Your task to perform on an android device: Open Wikipedia Image 0: 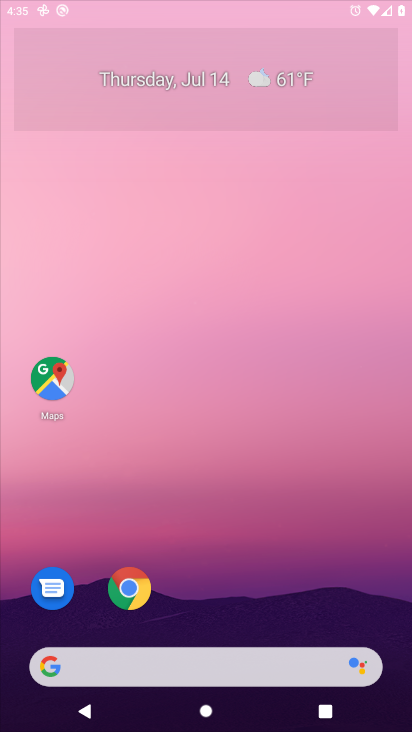
Step 0: press home button
Your task to perform on an android device: Open Wikipedia Image 1: 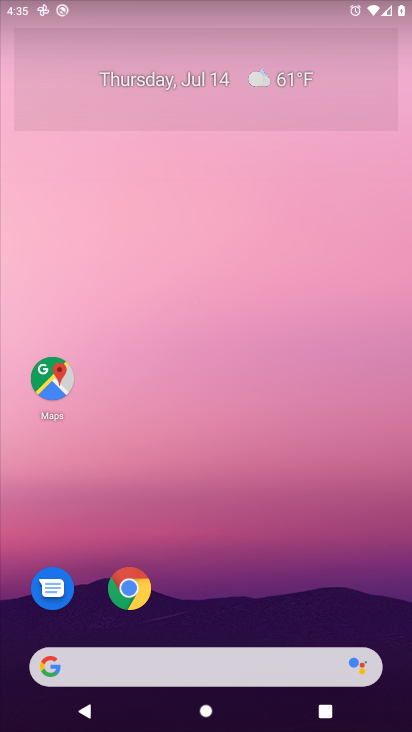
Step 1: click (48, 673)
Your task to perform on an android device: Open Wikipedia Image 2: 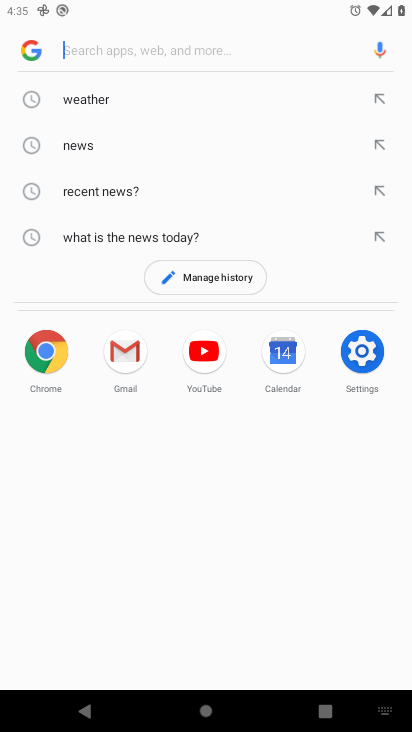
Step 2: press enter
Your task to perform on an android device: Open Wikipedia Image 3: 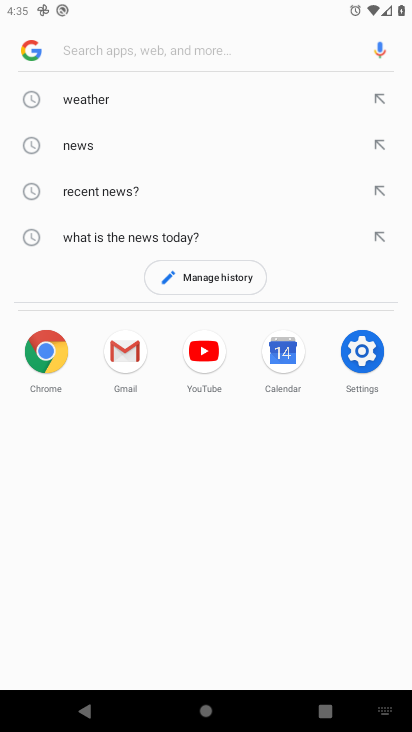
Step 3: type "Wikipedia"
Your task to perform on an android device: Open Wikipedia Image 4: 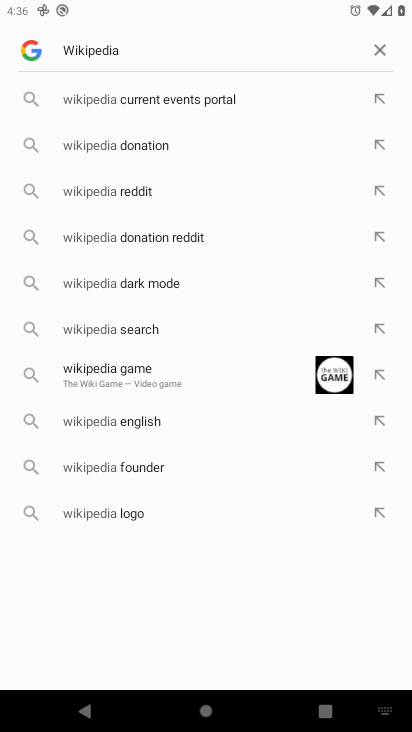
Step 4: click (127, 329)
Your task to perform on an android device: Open Wikipedia Image 5: 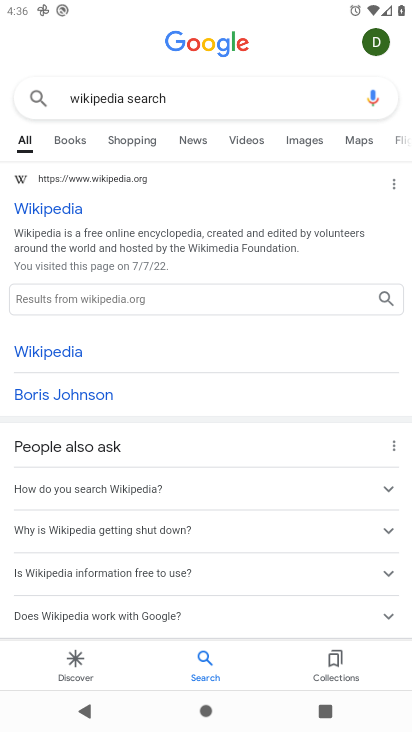
Step 5: click (54, 213)
Your task to perform on an android device: Open Wikipedia Image 6: 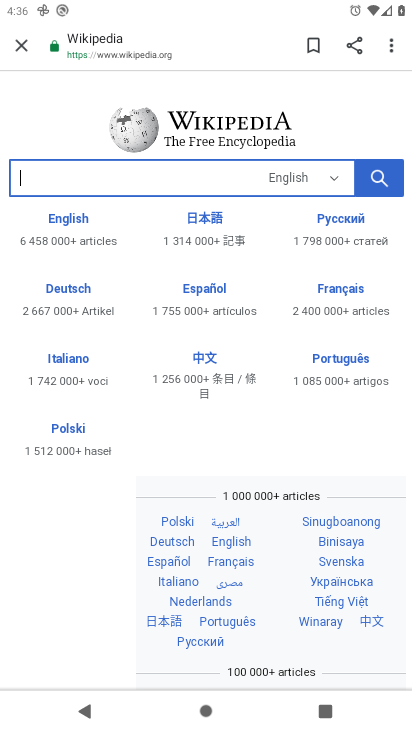
Step 6: task complete